Your task to perform on an android device: Go to eBay Image 0: 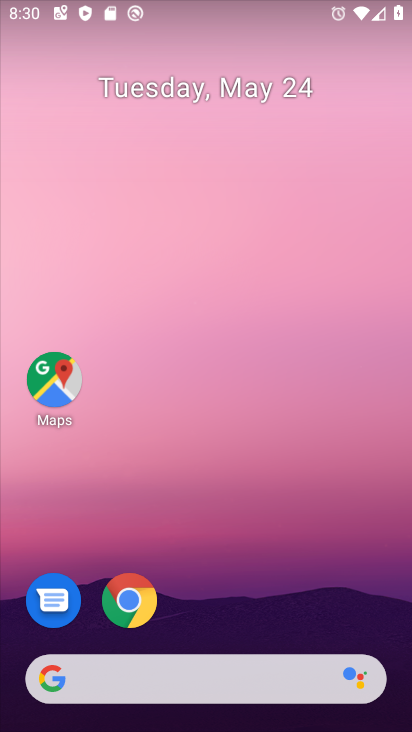
Step 0: click (130, 607)
Your task to perform on an android device: Go to eBay Image 1: 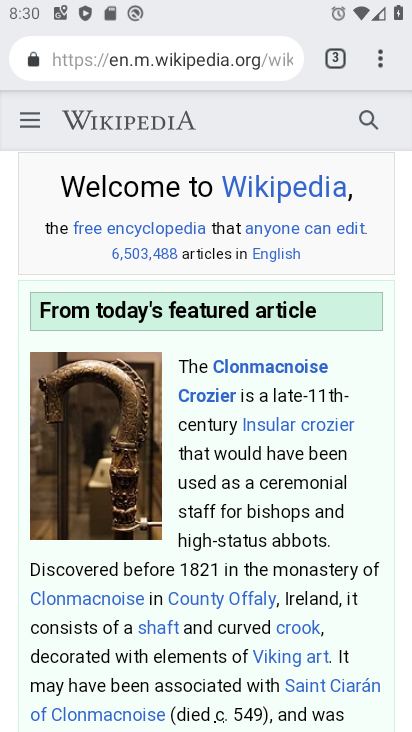
Step 1: click (382, 67)
Your task to perform on an android device: Go to eBay Image 2: 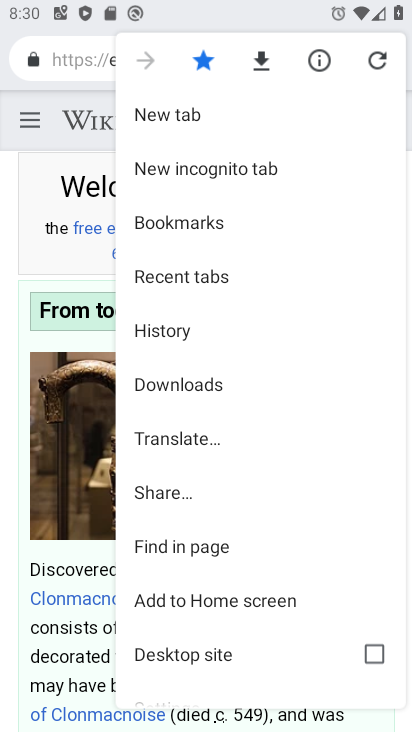
Step 2: click (178, 114)
Your task to perform on an android device: Go to eBay Image 3: 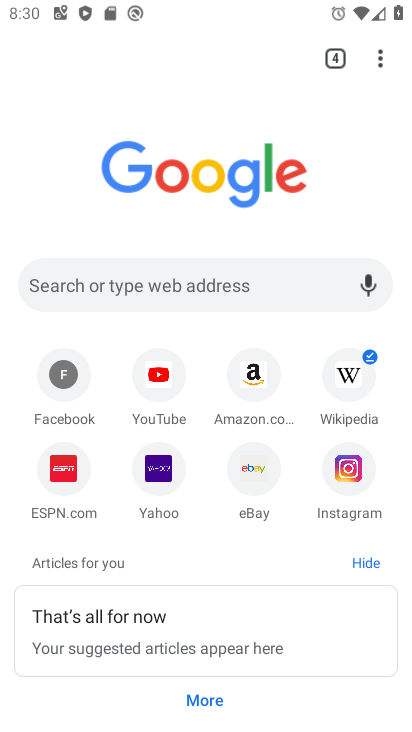
Step 3: click (251, 477)
Your task to perform on an android device: Go to eBay Image 4: 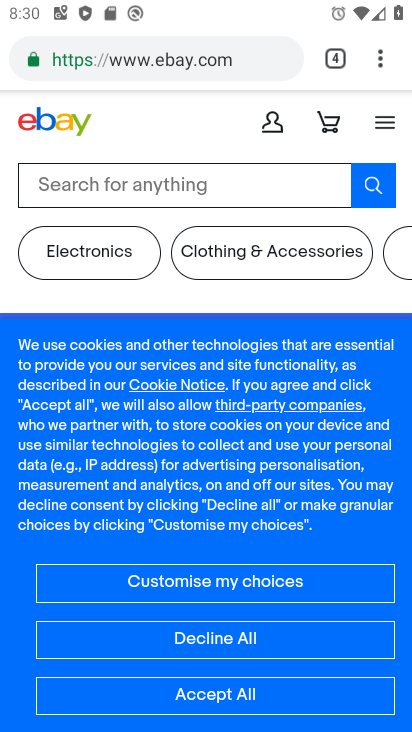
Step 4: task complete